Your task to perform on an android device: turn off notifications in google photos Image 0: 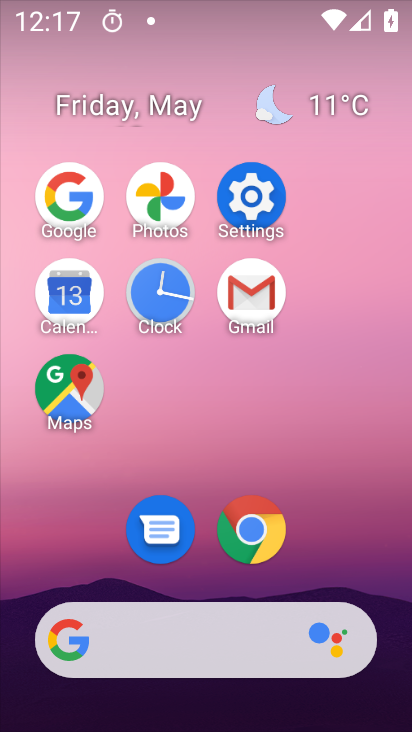
Step 0: click (164, 195)
Your task to perform on an android device: turn off notifications in google photos Image 1: 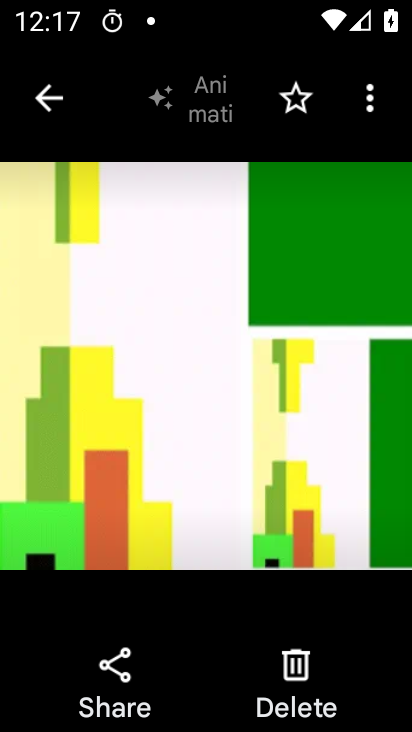
Step 1: click (57, 121)
Your task to perform on an android device: turn off notifications in google photos Image 2: 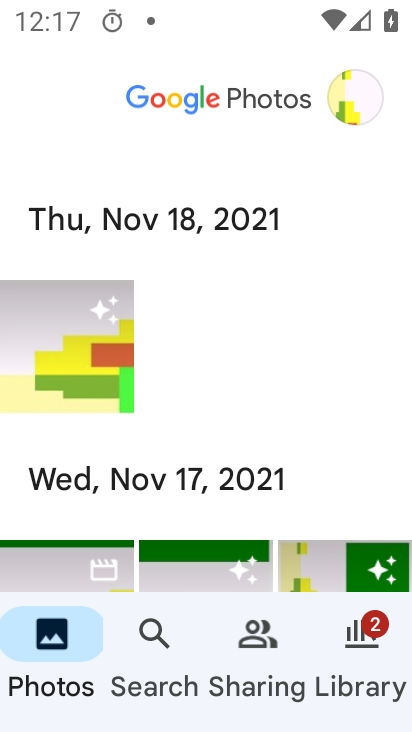
Step 2: click (372, 96)
Your task to perform on an android device: turn off notifications in google photos Image 3: 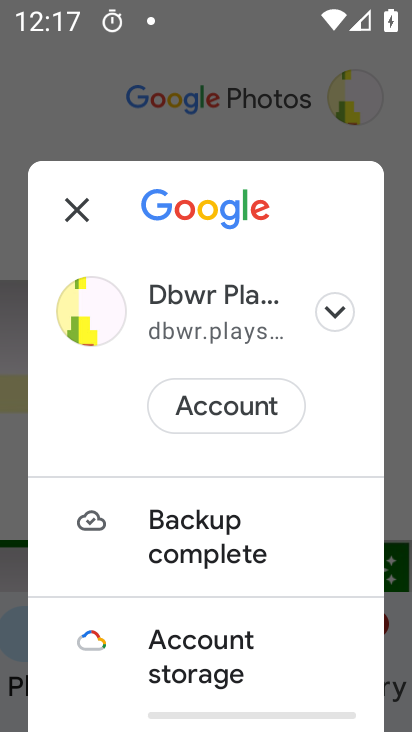
Step 3: drag from (246, 545) to (277, 269)
Your task to perform on an android device: turn off notifications in google photos Image 4: 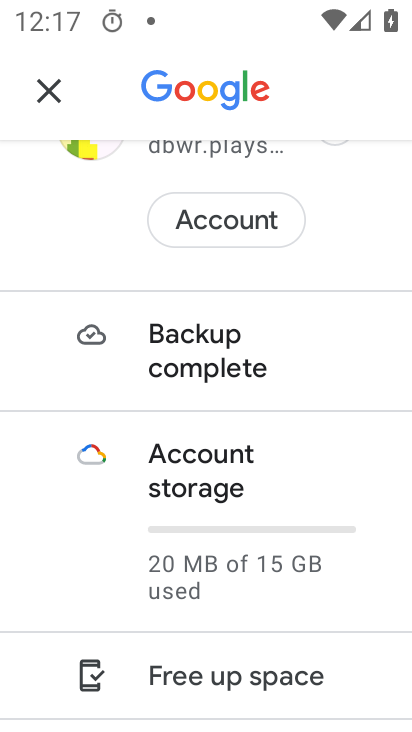
Step 4: drag from (310, 648) to (307, 227)
Your task to perform on an android device: turn off notifications in google photos Image 5: 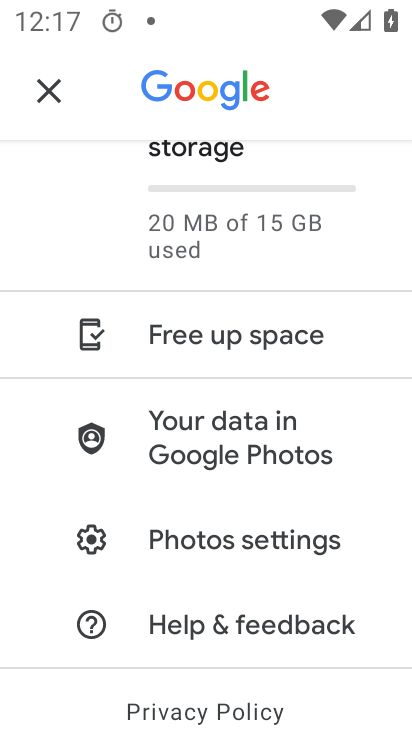
Step 5: drag from (307, 570) to (306, 269)
Your task to perform on an android device: turn off notifications in google photos Image 6: 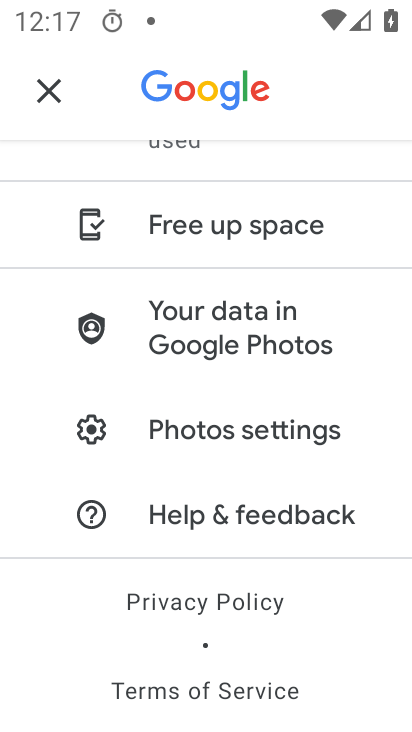
Step 6: click (275, 418)
Your task to perform on an android device: turn off notifications in google photos Image 7: 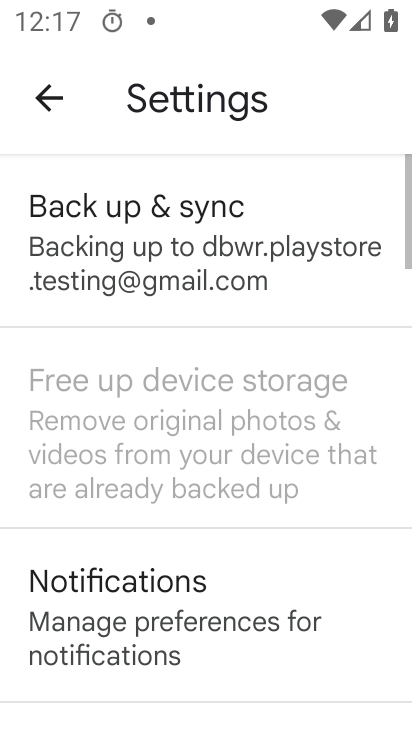
Step 7: drag from (215, 499) to (232, 226)
Your task to perform on an android device: turn off notifications in google photos Image 8: 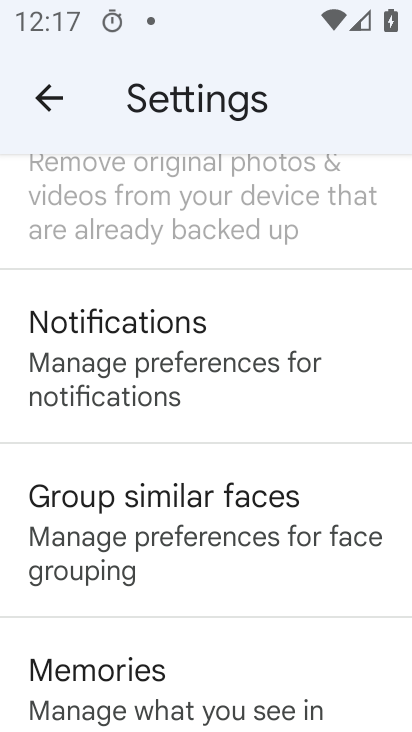
Step 8: click (207, 336)
Your task to perform on an android device: turn off notifications in google photos Image 9: 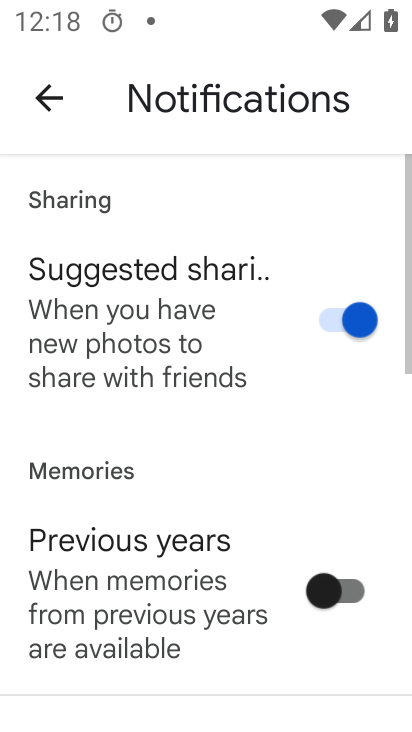
Step 9: drag from (222, 557) to (227, 189)
Your task to perform on an android device: turn off notifications in google photos Image 10: 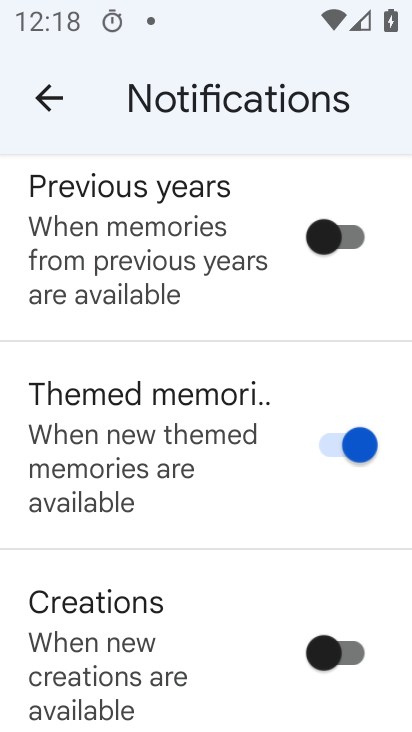
Step 10: drag from (231, 608) to (238, 201)
Your task to perform on an android device: turn off notifications in google photos Image 11: 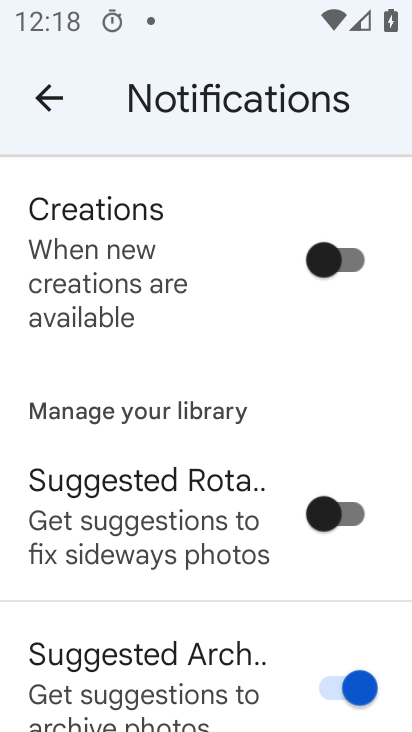
Step 11: drag from (227, 546) to (207, 182)
Your task to perform on an android device: turn off notifications in google photos Image 12: 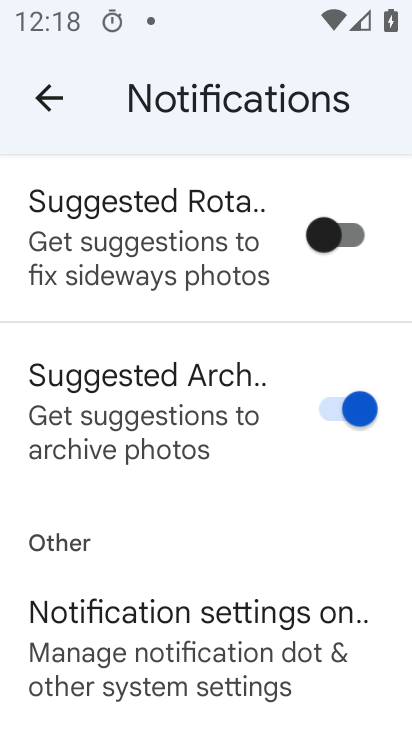
Step 12: drag from (222, 534) to (202, 203)
Your task to perform on an android device: turn off notifications in google photos Image 13: 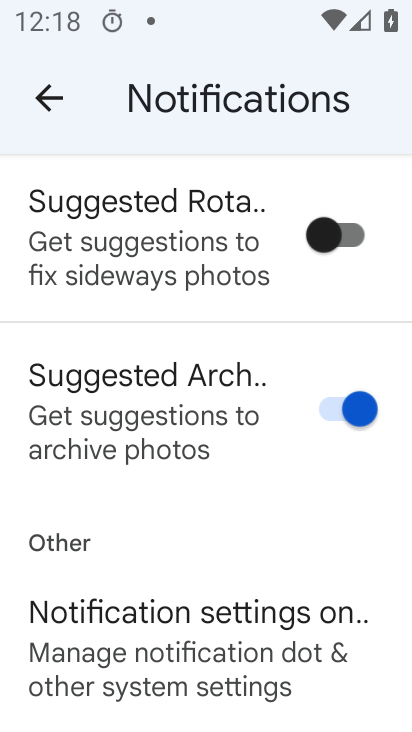
Step 13: click (233, 638)
Your task to perform on an android device: turn off notifications in google photos Image 14: 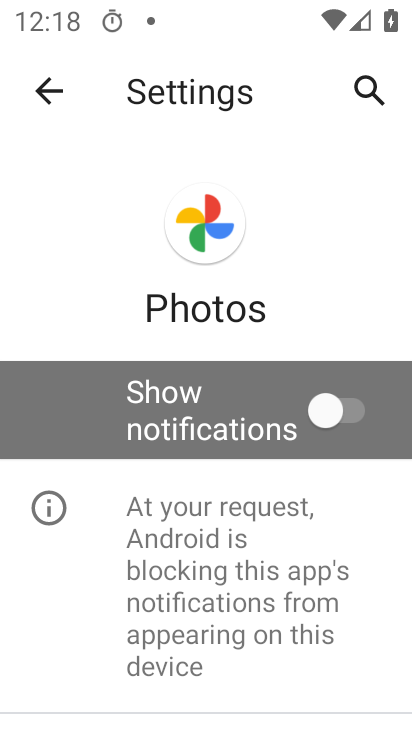
Step 14: task complete